Your task to perform on an android device: turn off wifi Image 0: 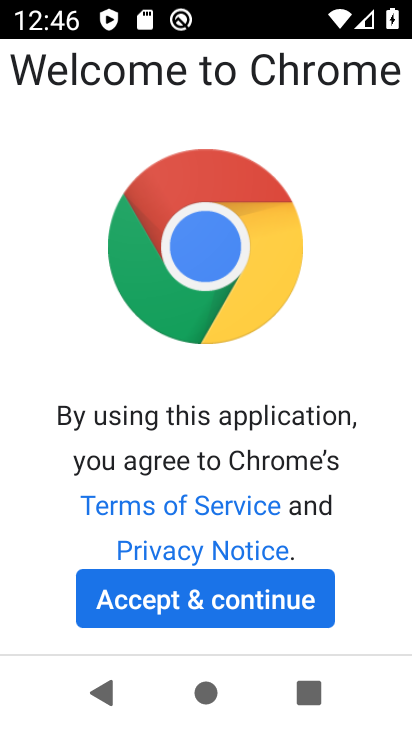
Step 0: press home button
Your task to perform on an android device: turn off wifi Image 1: 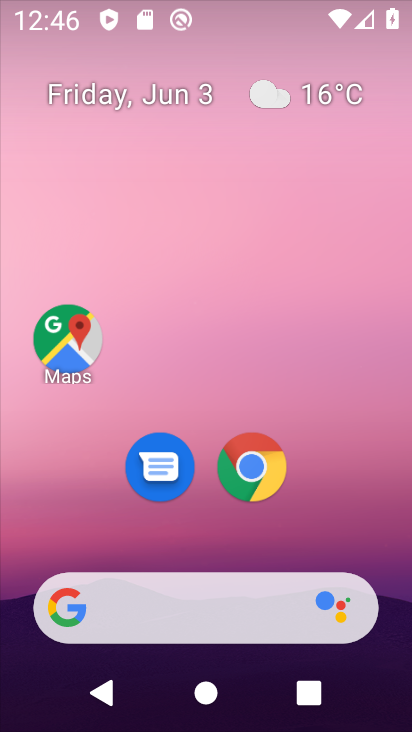
Step 1: drag from (142, 597) to (248, 53)
Your task to perform on an android device: turn off wifi Image 2: 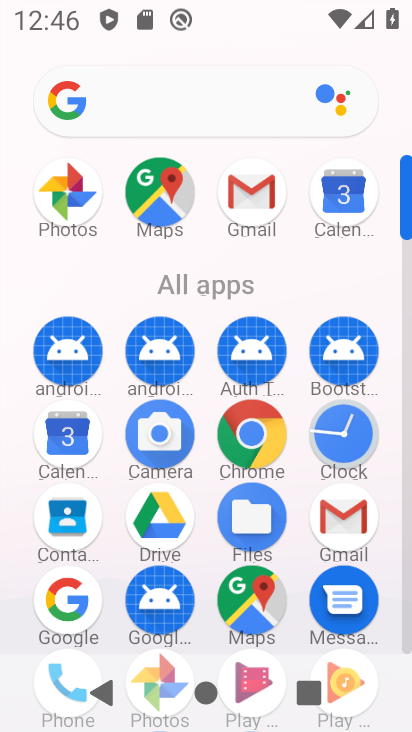
Step 2: drag from (187, 571) to (246, 337)
Your task to perform on an android device: turn off wifi Image 3: 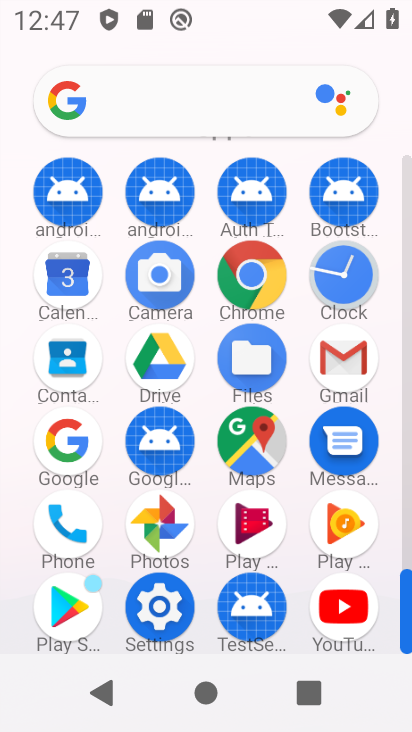
Step 3: click (169, 624)
Your task to perform on an android device: turn off wifi Image 4: 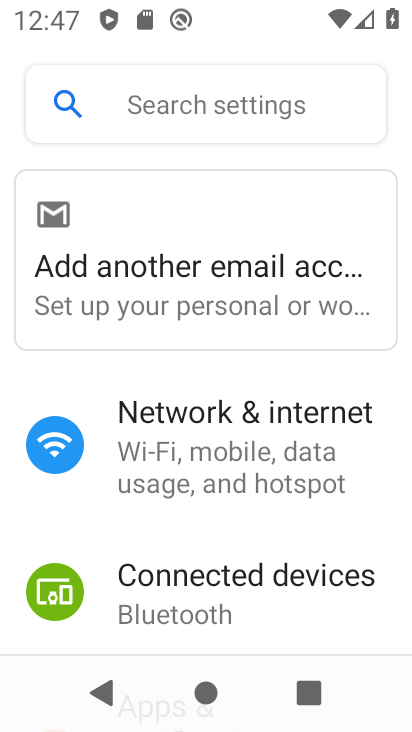
Step 4: click (222, 477)
Your task to perform on an android device: turn off wifi Image 5: 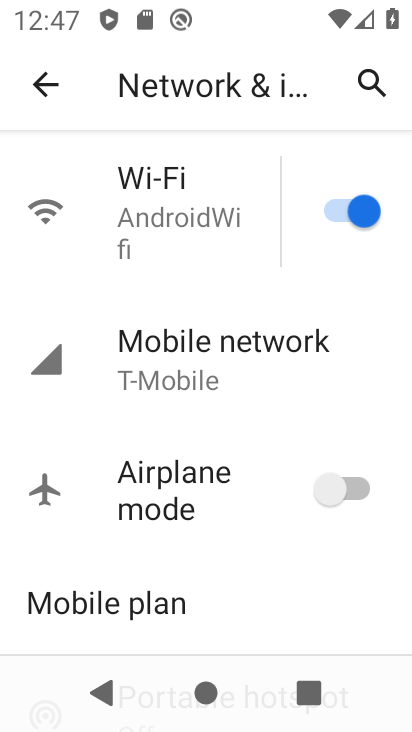
Step 5: click (330, 223)
Your task to perform on an android device: turn off wifi Image 6: 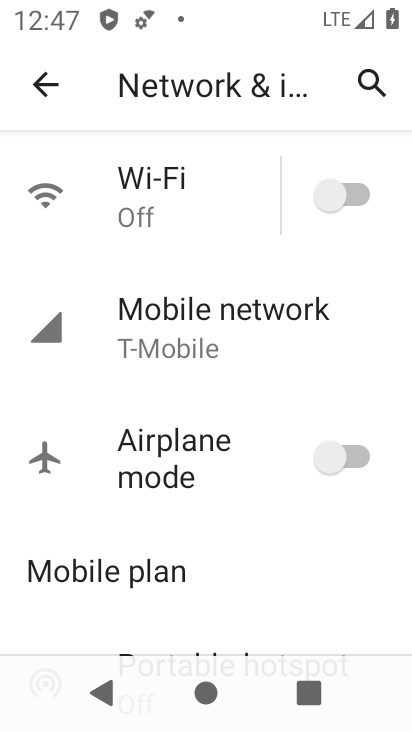
Step 6: task complete